Your task to perform on an android device: See recent photos Image 0: 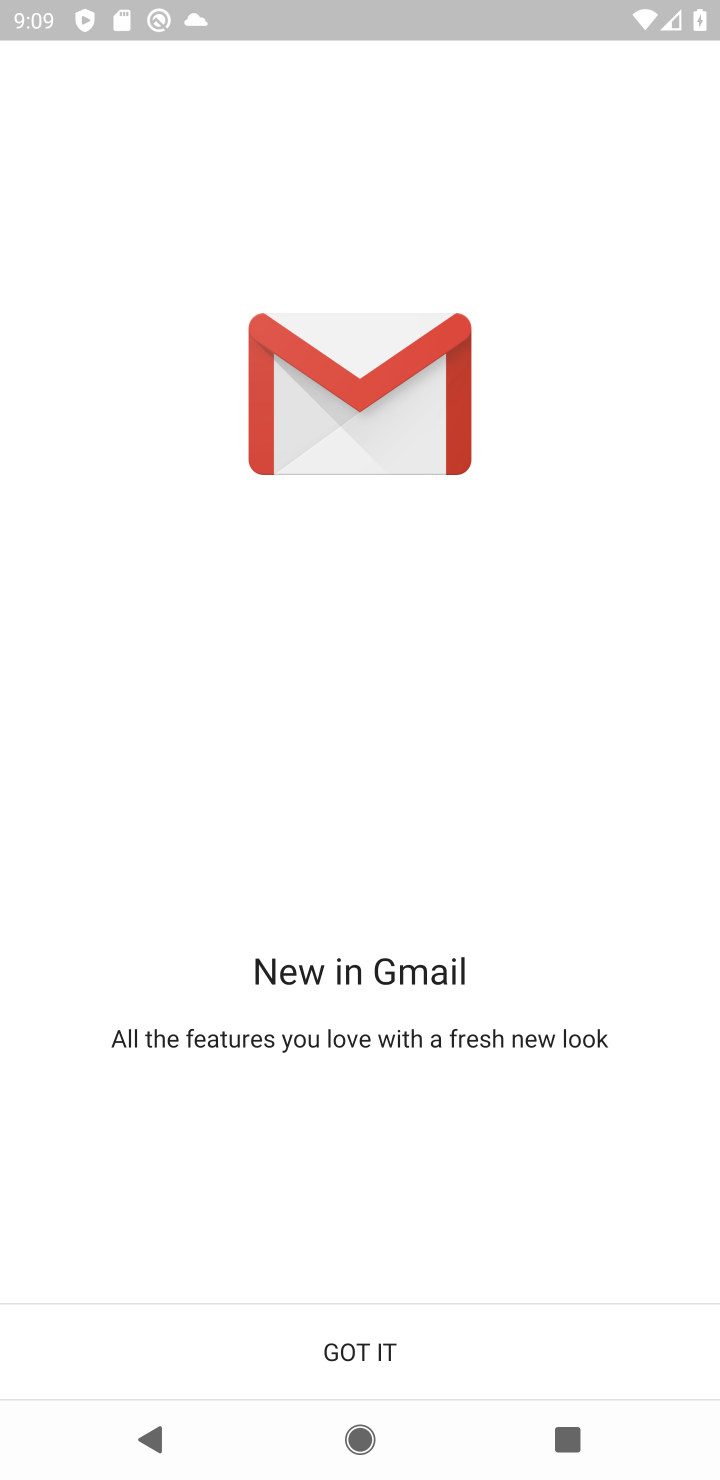
Step 0: press home button
Your task to perform on an android device: See recent photos Image 1: 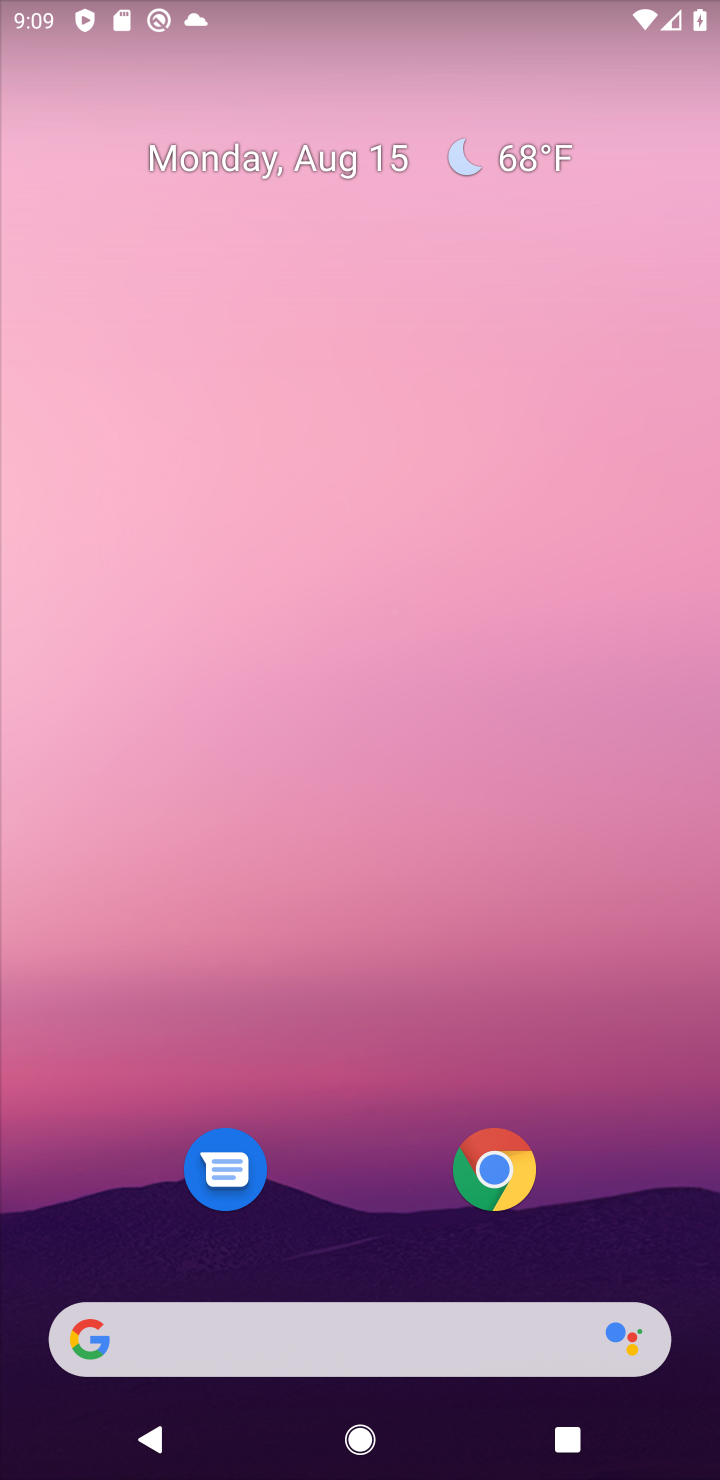
Step 1: drag from (370, 1334) to (560, 10)
Your task to perform on an android device: See recent photos Image 2: 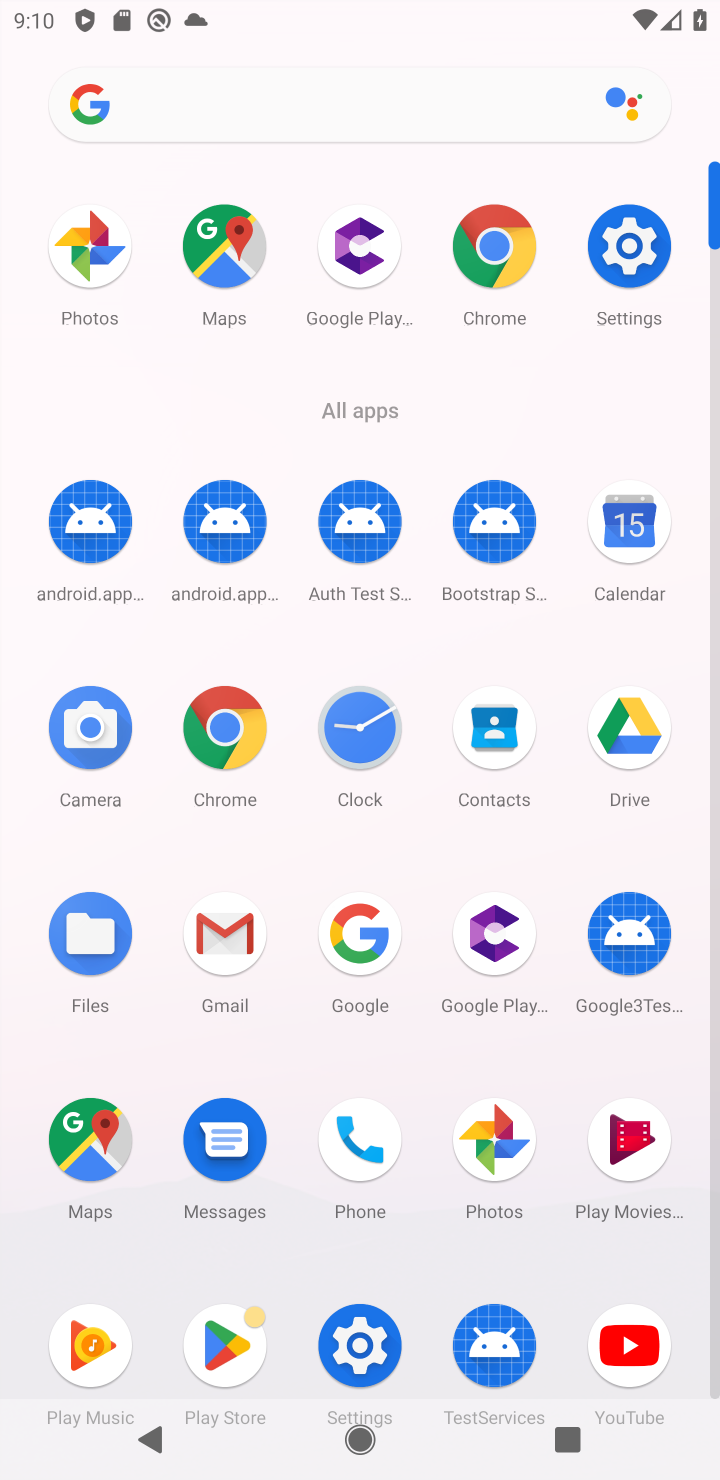
Step 2: click (70, 255)
Your task to perform on an android device: See recent photos Image 3: 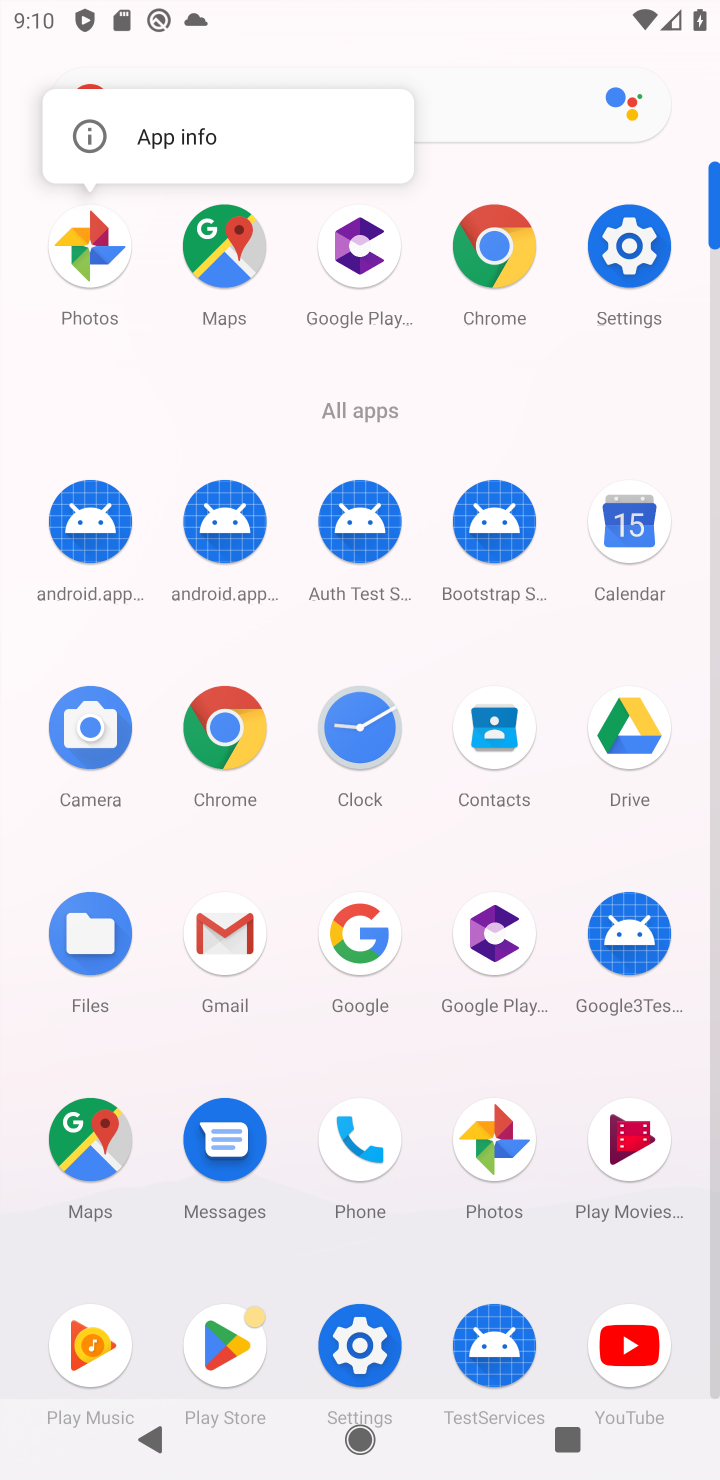
Step 3: click (70, 253)
Your task to perform on an android device: See recent photos Image 4: 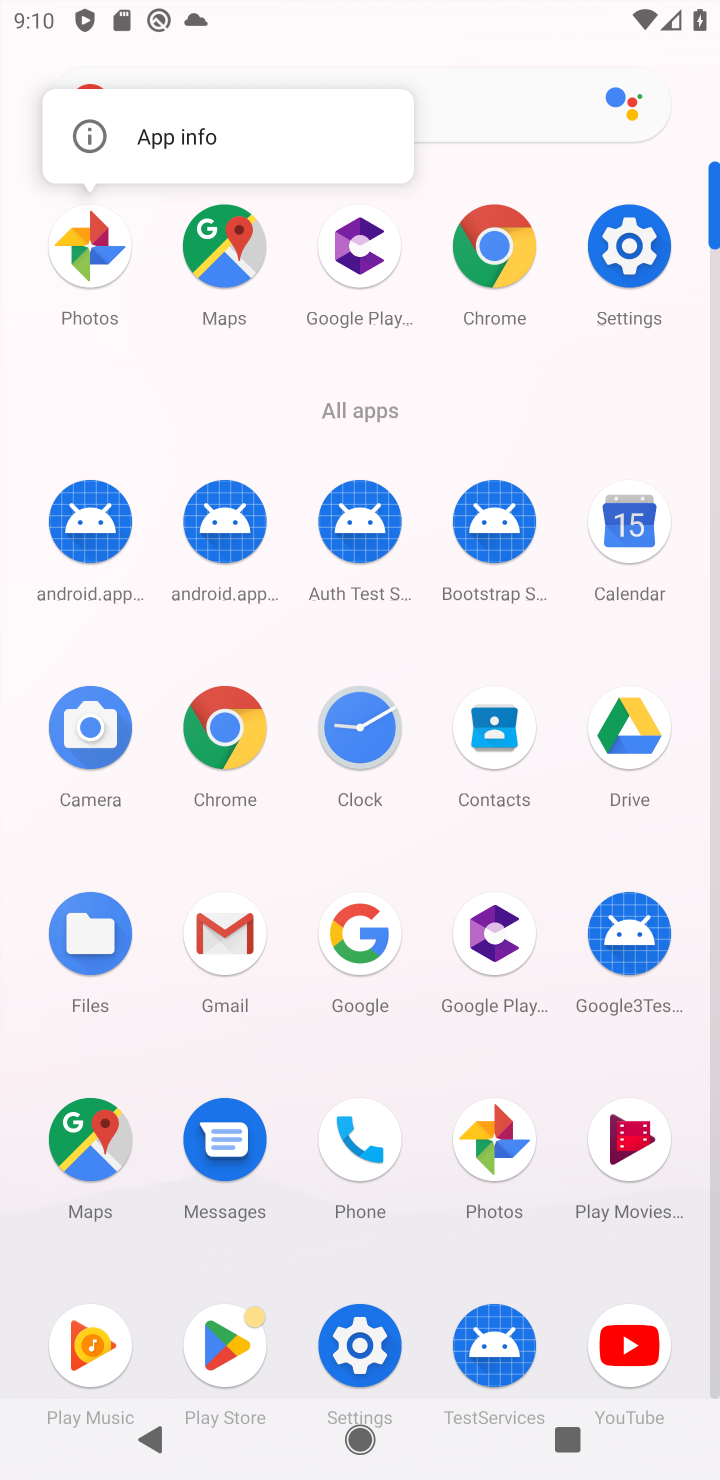
Step 4: click (93, 225)
Your task to perform on an android device: See recent photos Image 5: 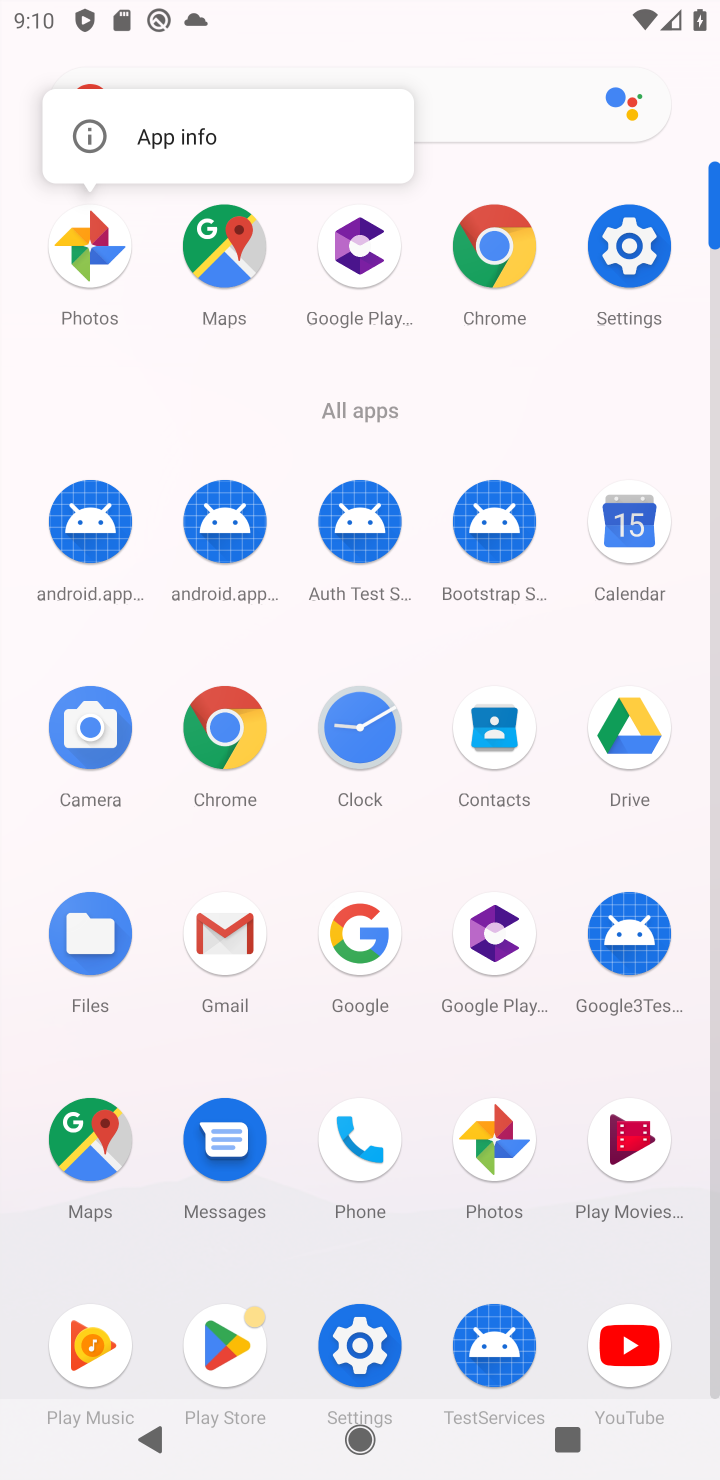
Step 5: click (98, 260)
Your task to perform on an android device: See recent photos Image 6: 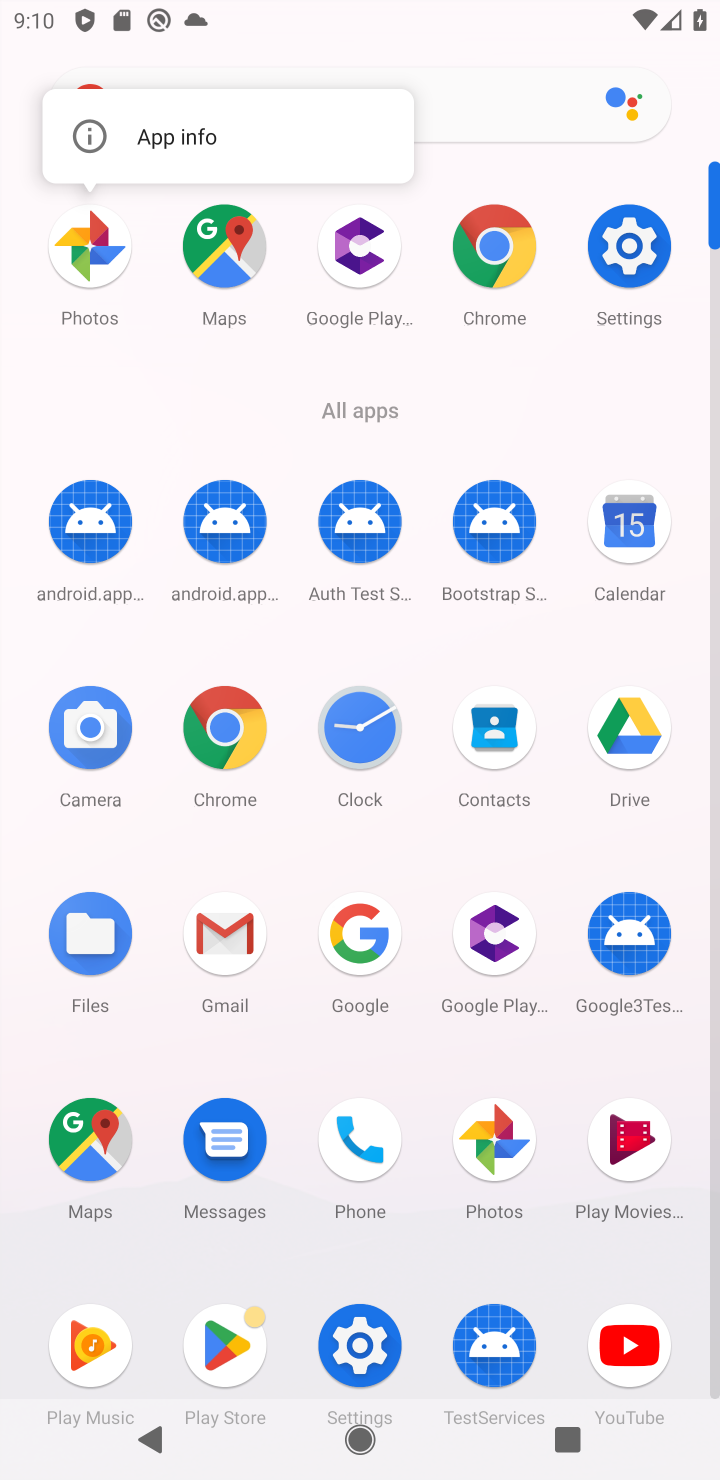
Step 6: click (98, 263)
Your task to perform on an android device: See recent photos Image 7: 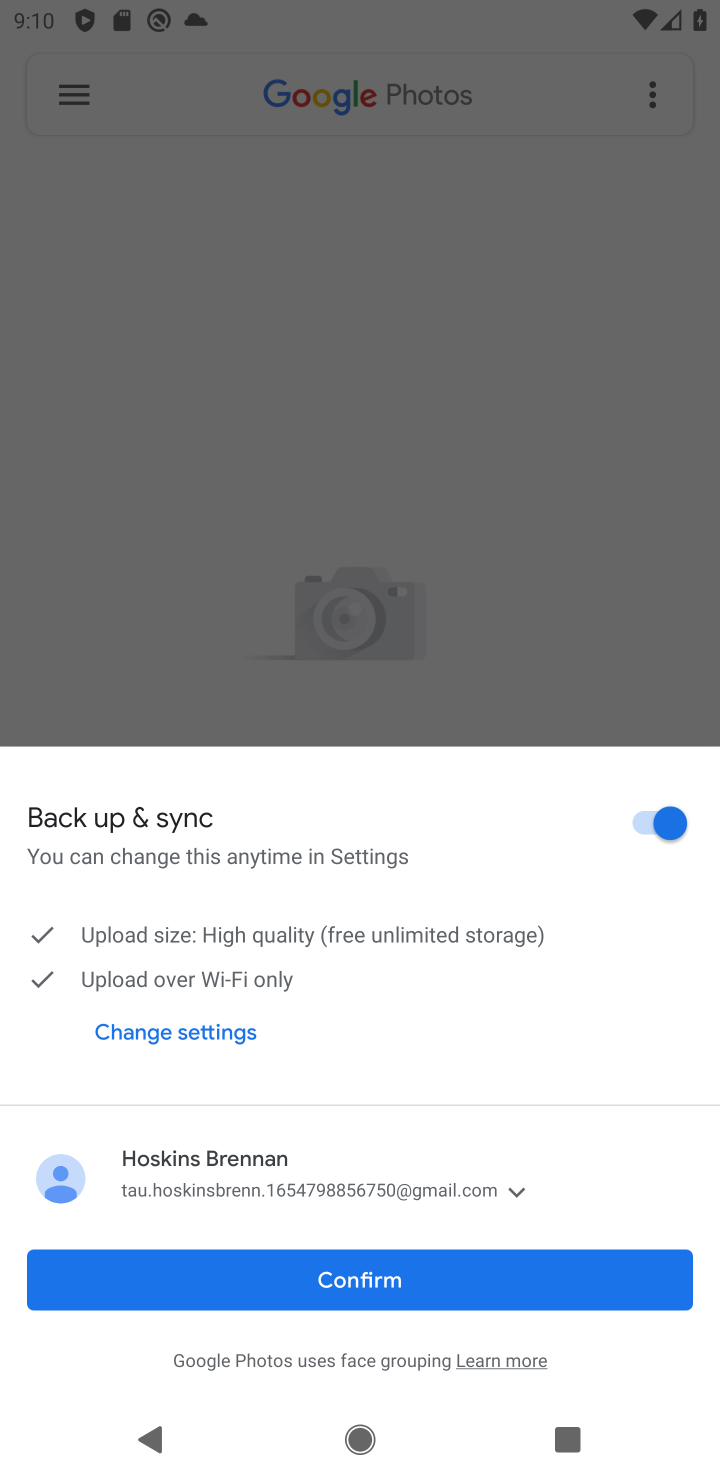
Step 7: click (394, 1274)
Your task to perform on an android device: See recent photos Image 8: 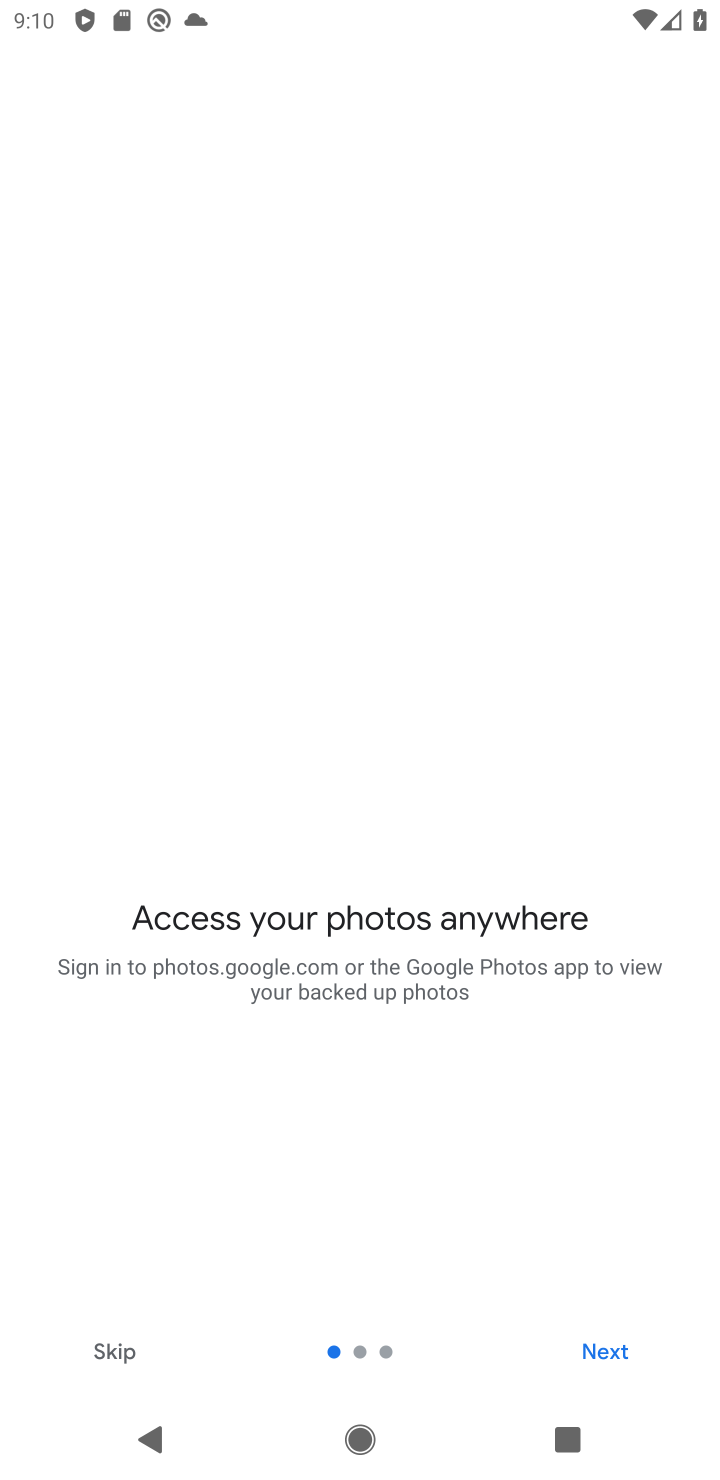
Step 8: click (574, 1334)
Your task to perform on an android device: See recent photos Image 9: 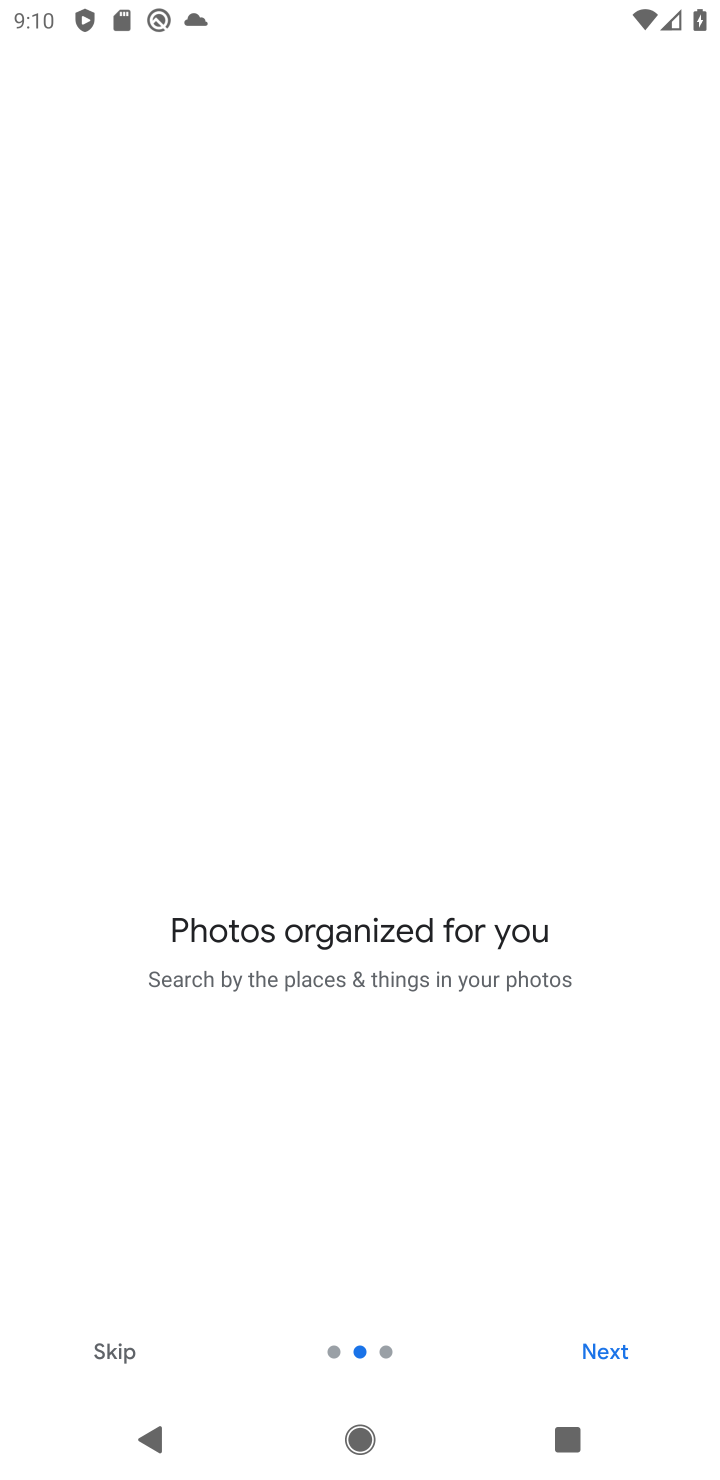
Step 9: click (574, 1332)
Your task to perform on an android device: See recent photos Image 10: 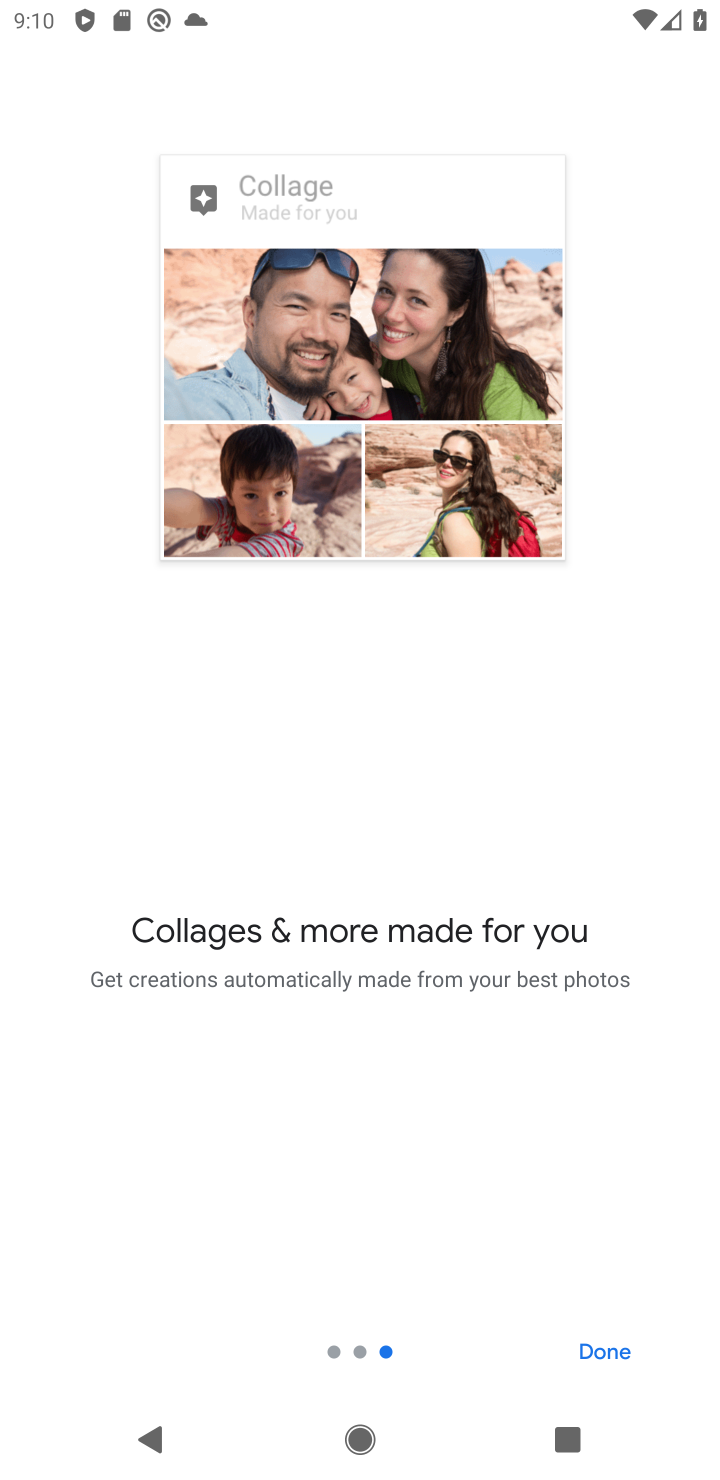
Step 10: click (598, 1353)
Your task to perform on an android device: See recent photos Image 11: 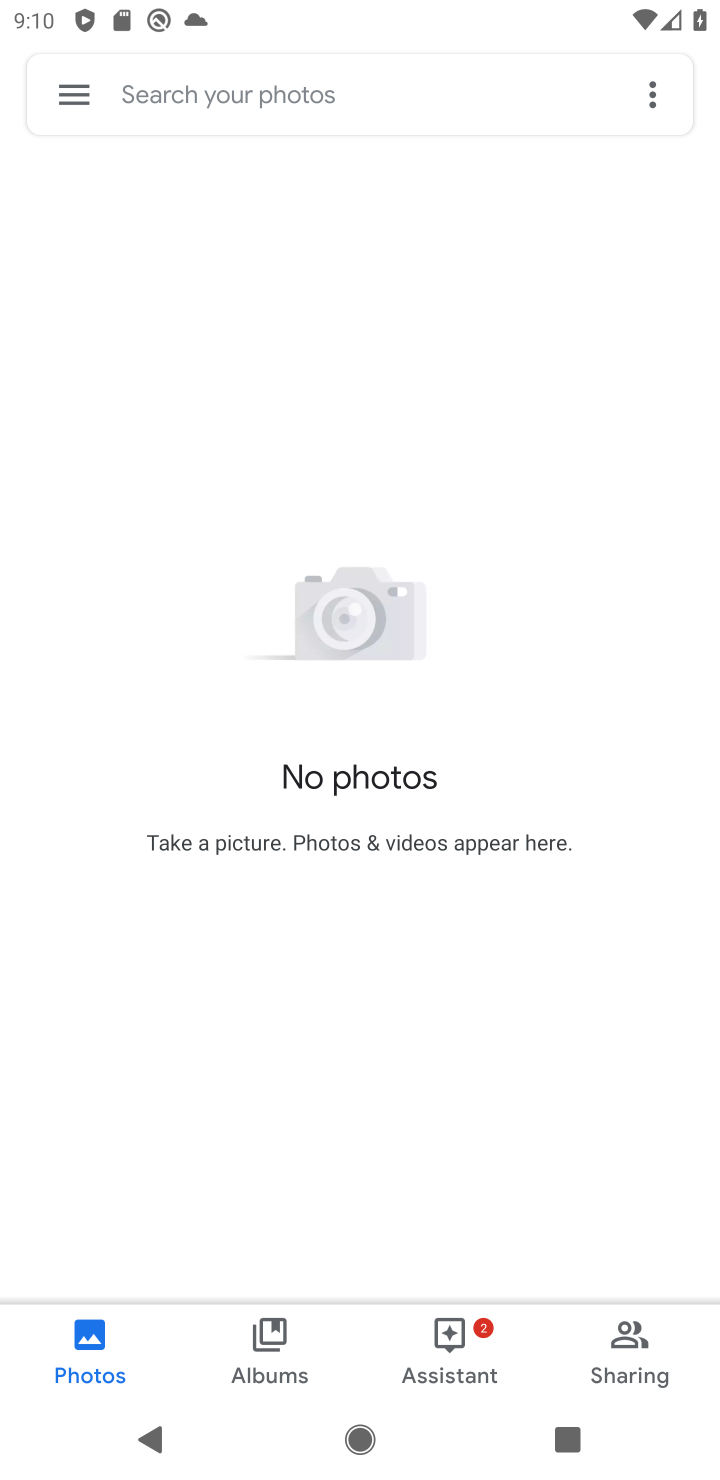
Step 11: click (264, 1323)
Your task to perform on an android device: See recent photos Image 12: 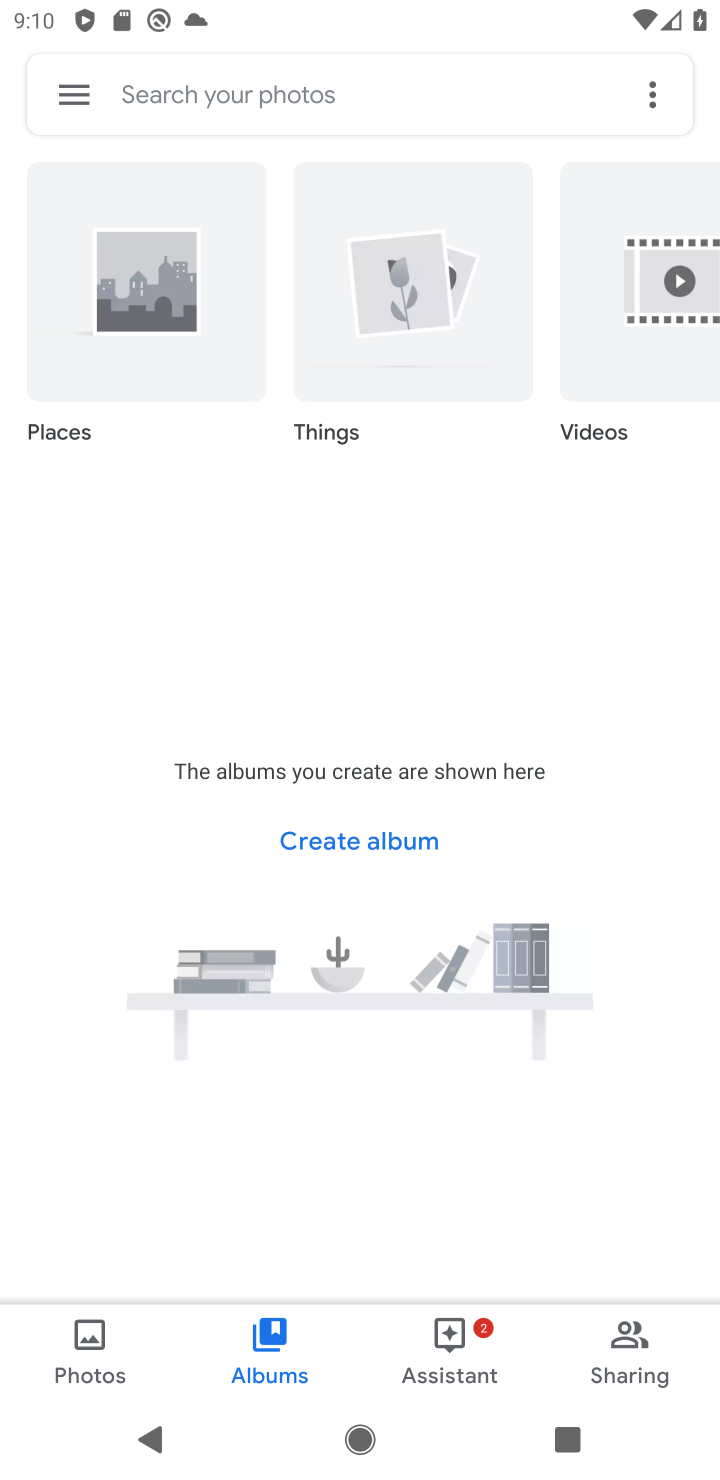
Step 12: task complete